Your task to perform on an android device: Open calendar and show me the first week of next month Image 0: 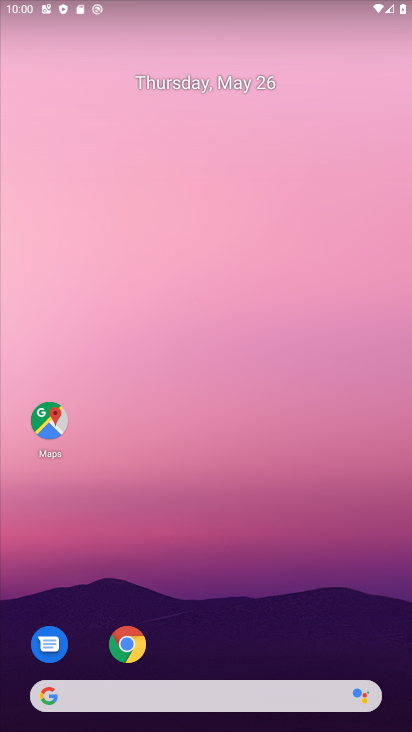
Step 0: type ""
Your task to perform on an android device: Open calendar and show me the first week of next month Image 1: 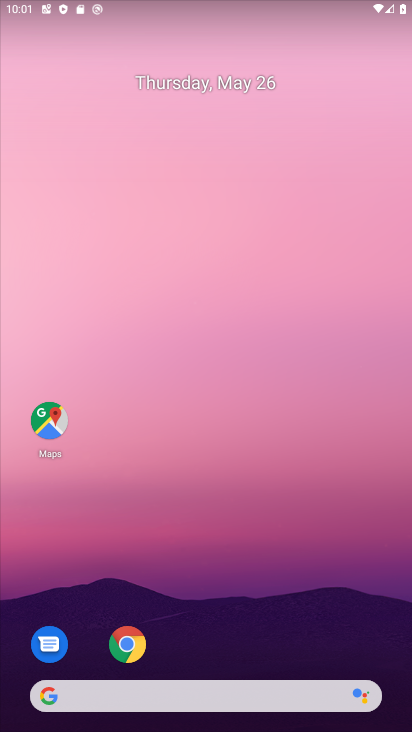
Step 1: drag from (344, 640) to (350, 176)
Your task to perform on an android device: Open calendar and show me the first week of next month Image 2: 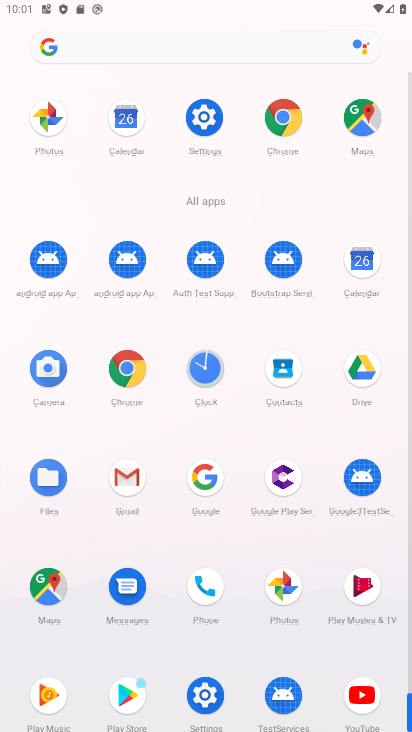
Step 2: click (369, 268)
Your task to perform on an android device: Open calendar and show me the first week of next month Image 3: 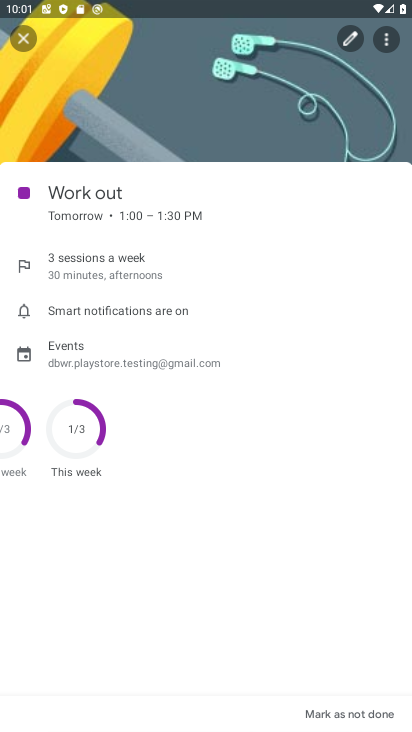
Step 3: click (12, 35)
Your task to perform on an android device: Open calendar and show me the first week of next month Image 4: 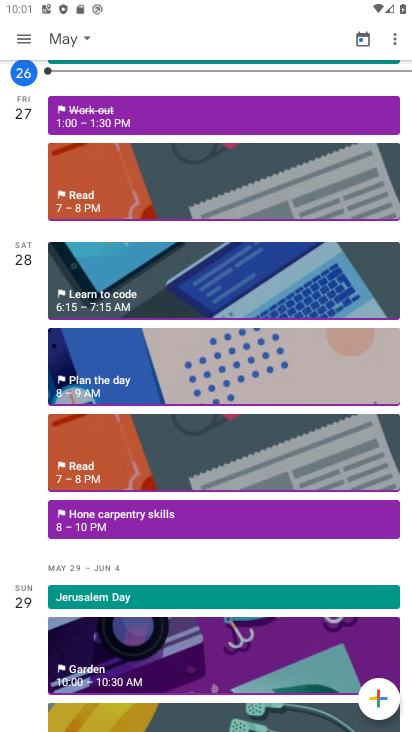
Step 4: click (87, 30)
Your task to perform on an android device: Open calendar and show me the first week of next month Image 5: 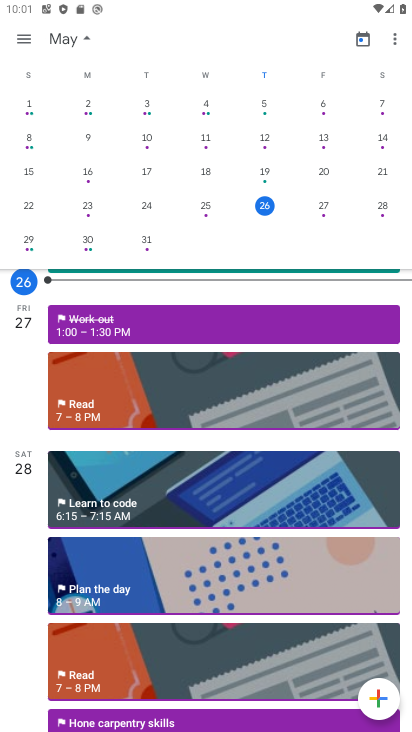
Step 5: drag from (297, 86) to (4, 93)
Your task to perform on an android device: Open calendar and show me the first week of next month Image 6: 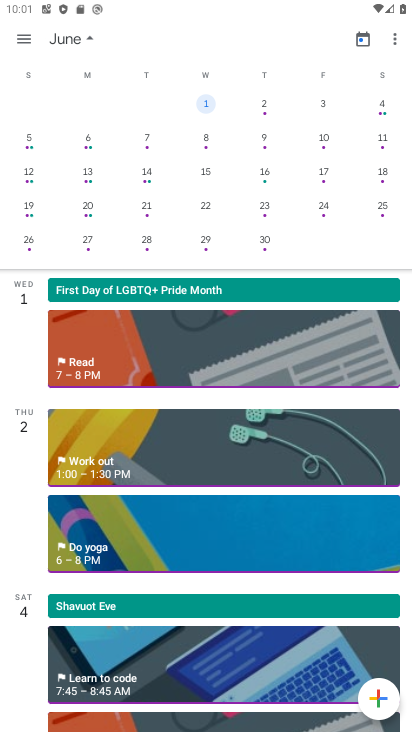
Step 6: click (268, 106)
Your task to perform on an android device: Open calendar and show me the first week of next month Image 7: 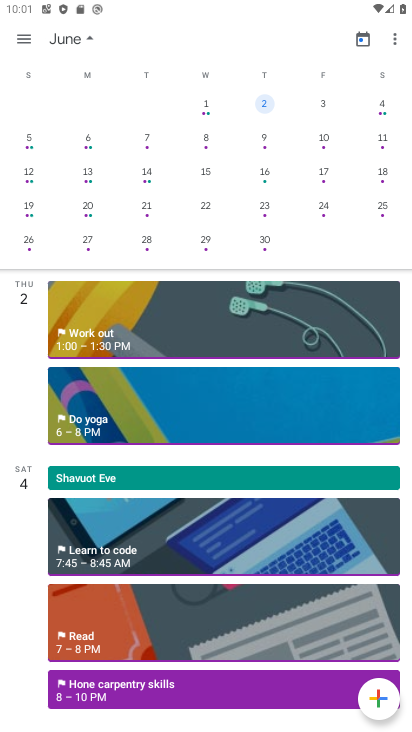
Step 7: task complete